Your task to perform on an android device: turn off javascript in the chrome app Image 0: 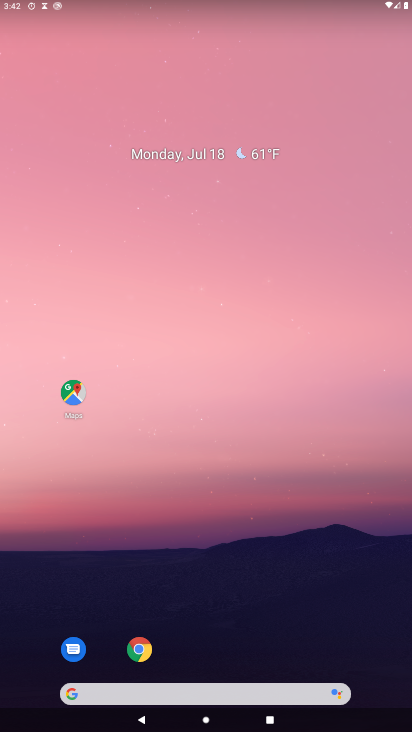
Step 0: click (145, 640)
Your task to perform on an android device: turn off javascript in the chrome app Image 1: 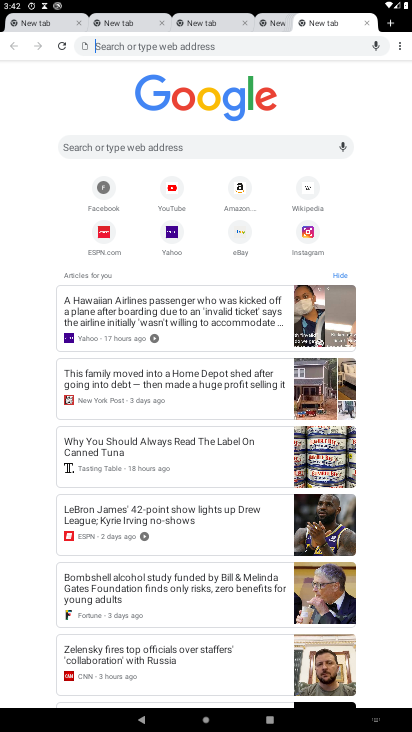
Step 1: click (392, 45)
Your task to perform on an android device: turn off javascript in the chrome app Image 2: 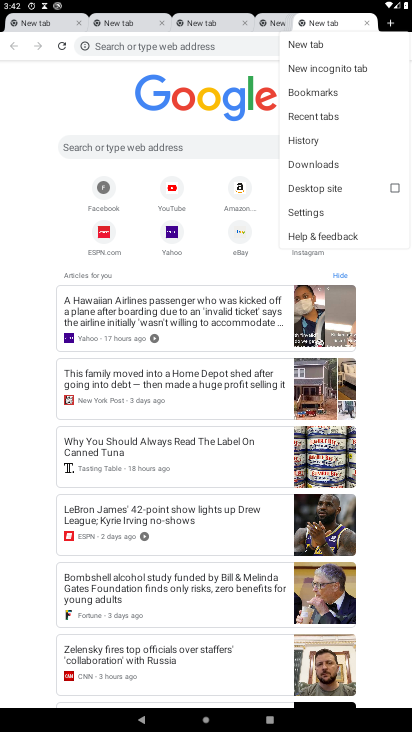
Step 2: click (311, 210)
Your task to perform on an android device: turn off javascript in the chrome app Image 3: 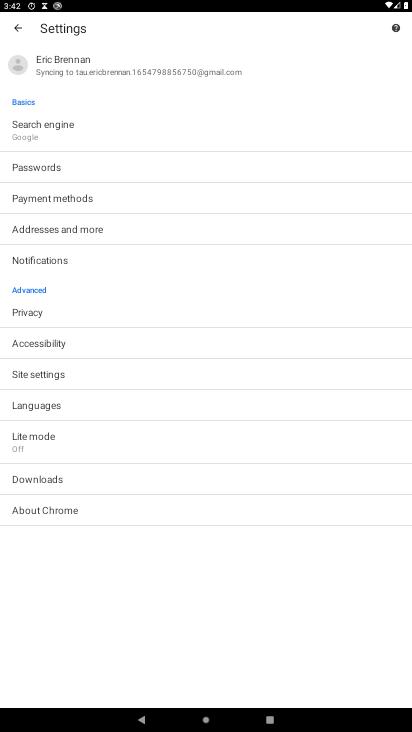
Step 3: click (45, 371)
Your task to perform on an android device: turn off javascript in the chrome app Image 4: 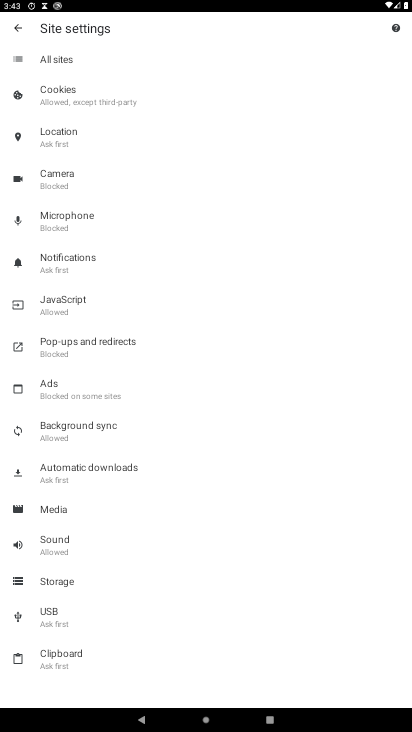
Step 4: click (71, 303)
Your task to perform on an android device: turn off javascript in the chrome app Image 5: 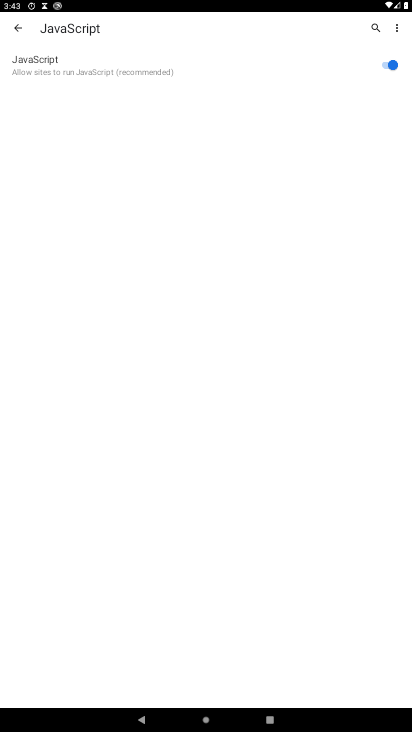
Step 5: task complete